Your task to perform on an android device: See recent photos Image 0: 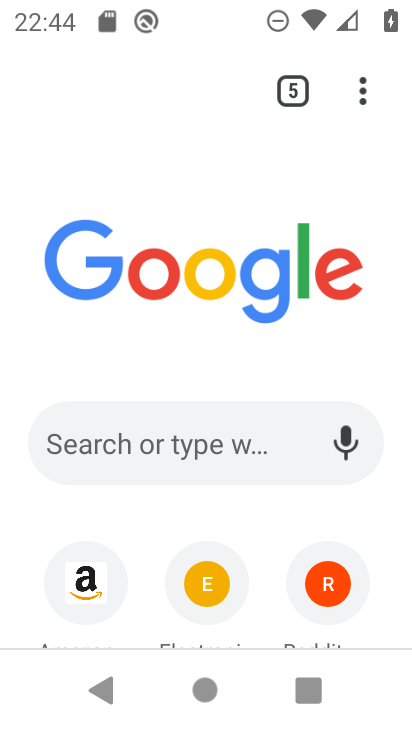
Step 0: press home button
Your task to perform on an android device: See recent photos Image 1: 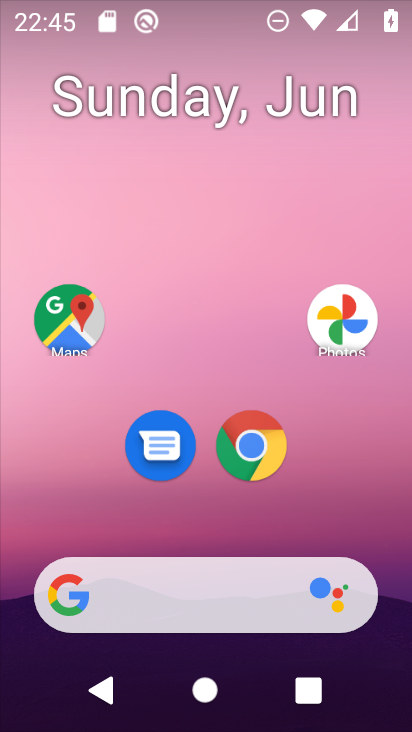
Step 1: click (345, 319)
Your task to perform on an android device: See recent photos Image 2: 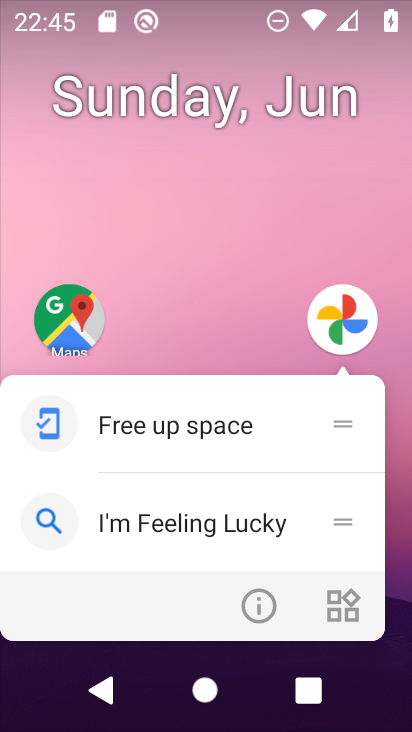
Step 2: click (345, 318)
Your task to perform on an android device: See recent photos Image 3: 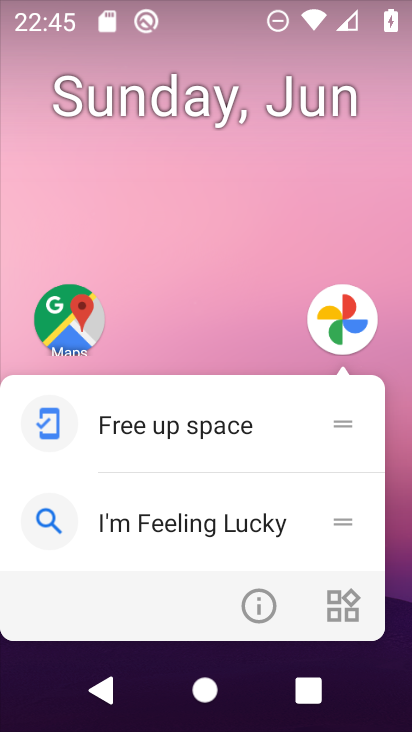
Step 3: click (345, 315)
Your task to perform on an android device: See recent photos Image 4: 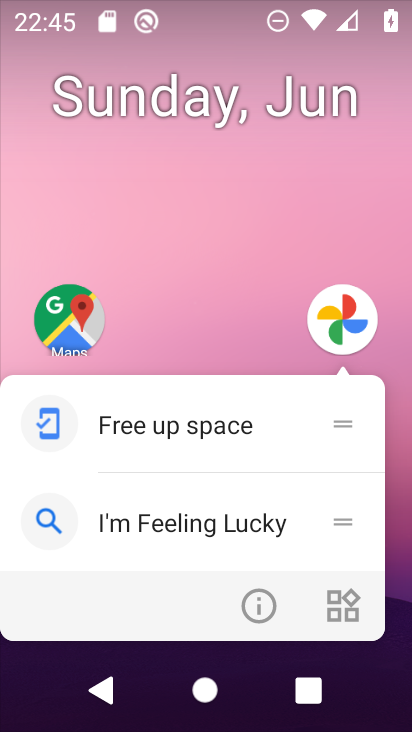
Step 4: click (242, 188)
Your task to perform on an android device: See recent photos Image 5: 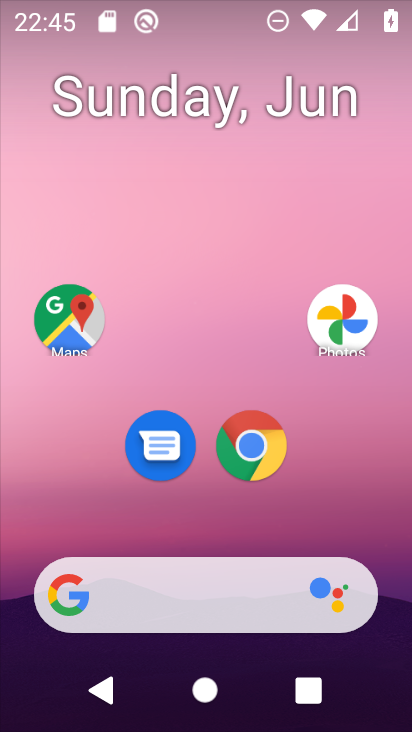
Step 5: drag from (318, 511) to (222, 102)
Your task to perform on an android device: See recent photos Image 6: 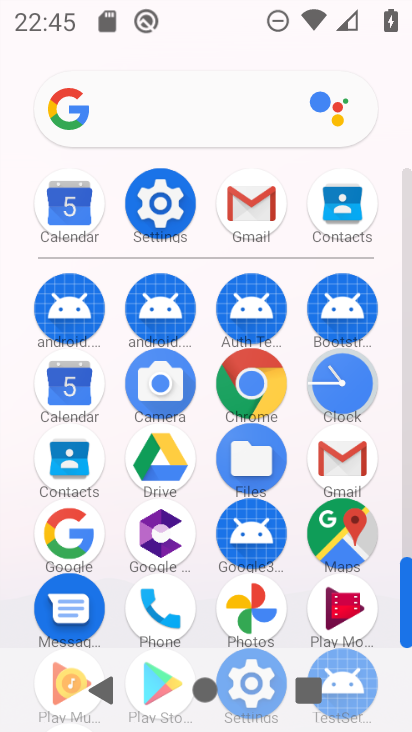
Step 6: click (258, 608)
Your task to perform on an android device: See recent photos Image 7: 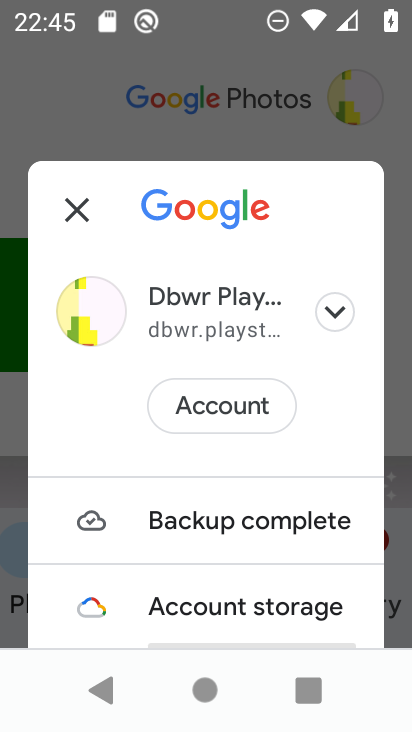
Step 7: click (79, 203)
Your task to perform on an android device: See recent photos Image 8: 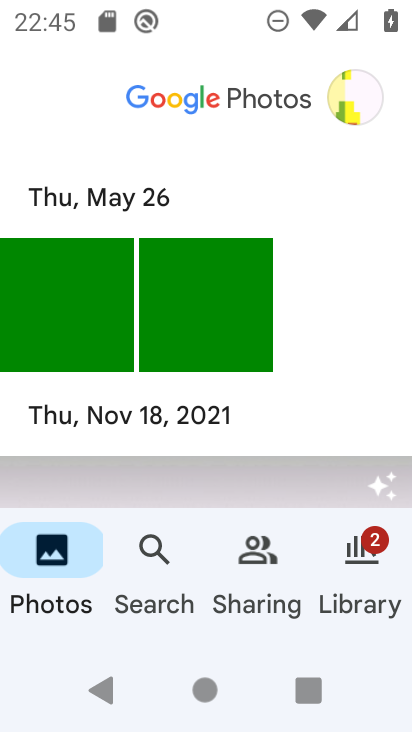
Step 8: click (51, 535)
Your task to perform on an android device: See recent photos Image 9: 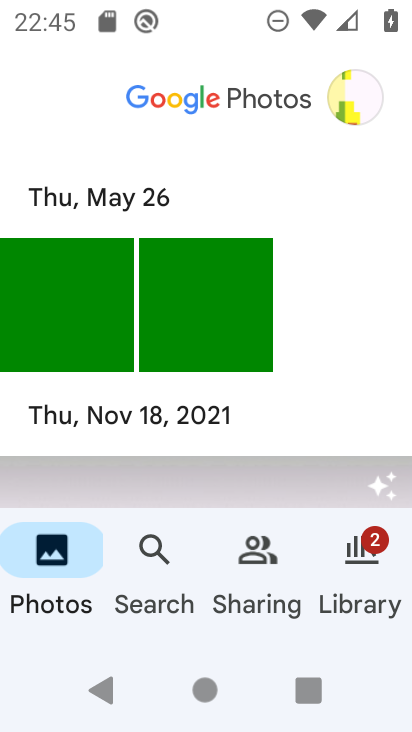
Step 9: task complete